Your task to perform on an android device: turn off location history Image 0: 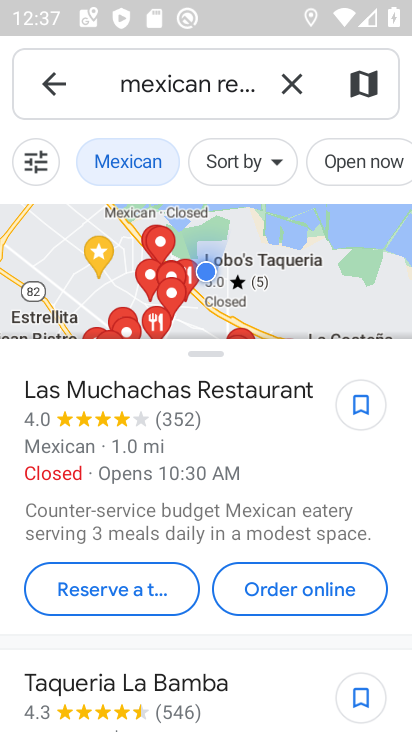
Step 0: press home button
Your task to perform on an android device: turn off location history Image 1: 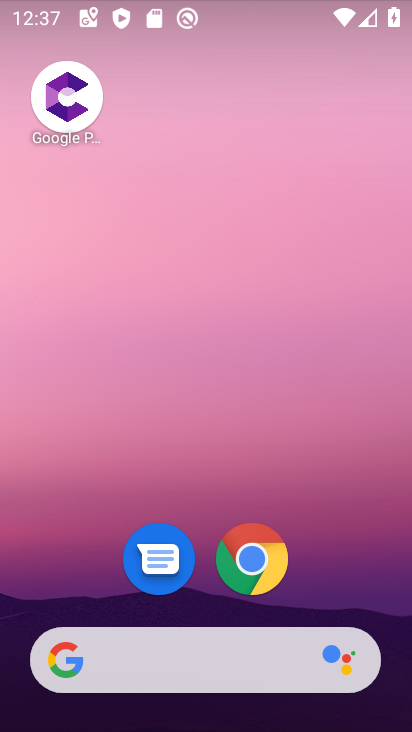
Step 1: drag from (159, 726) to (158, 0)
Your task to perform on an android device: turn off location history Image 2: 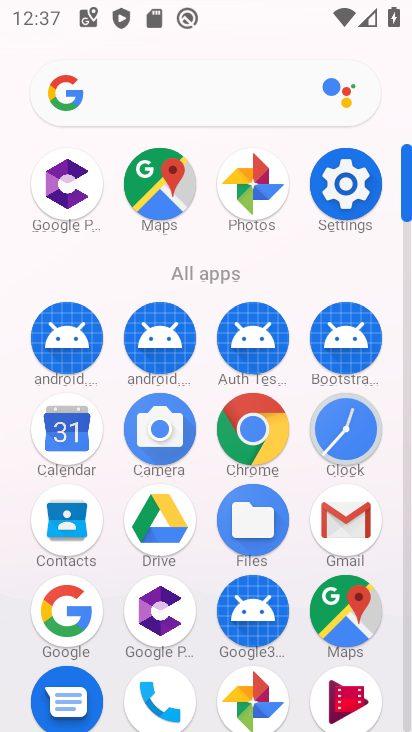
Step 2: click (334, 197)
Your task to perform on an android device: turn off location history Image 3: 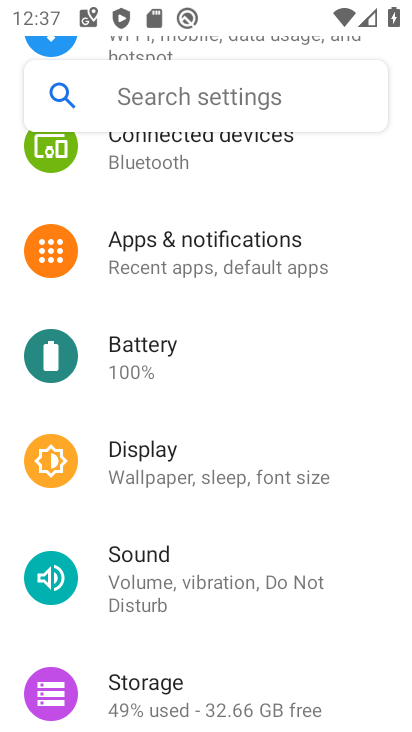
Step 3: drag from (214, 647) to (261, 242)
Your task to perform on an android device: turn off location history Image 4: 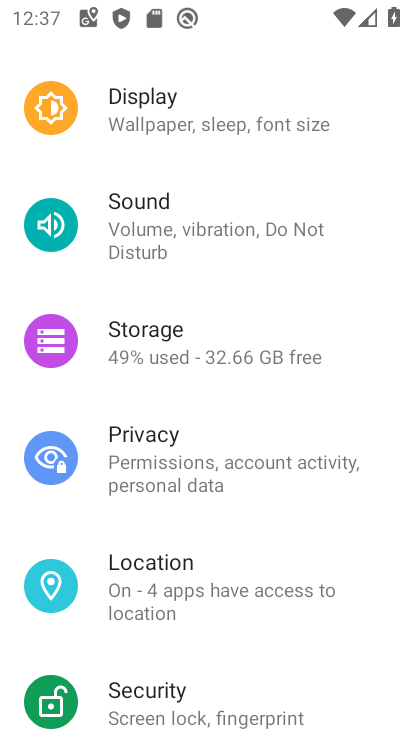
Step 4: click (196, 589)
Your task to perform on an android device: turn off location history Image 5: 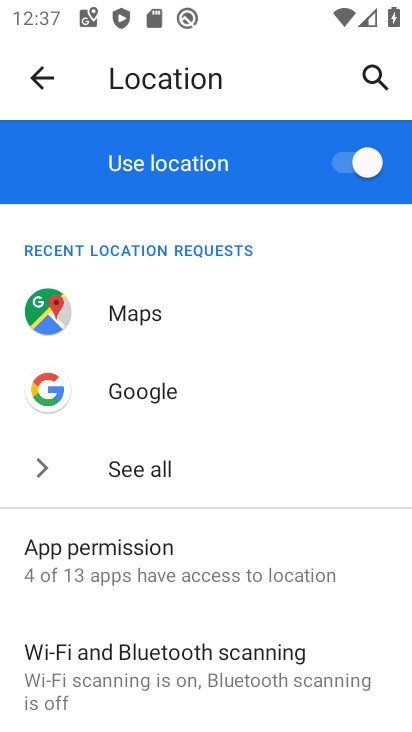
Step 5: drag from (211, 699) to (231, 327)
Your task to perform on an android device: turn off location history Image 6: 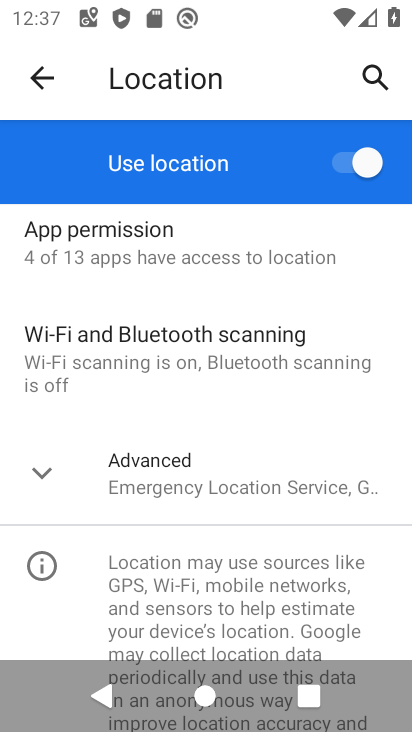
Step 6: click (180, 490)
Your task to perform on an android device: turn off location history Image 7: 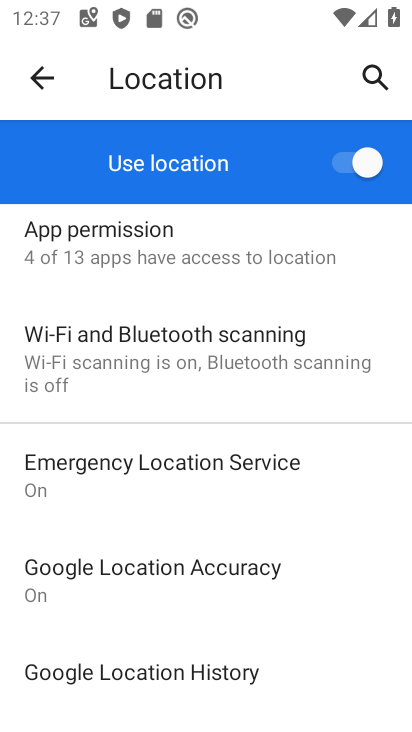
Step 7: click (139, 677)
Your task to perform on an android device: turn off location history Image 8: 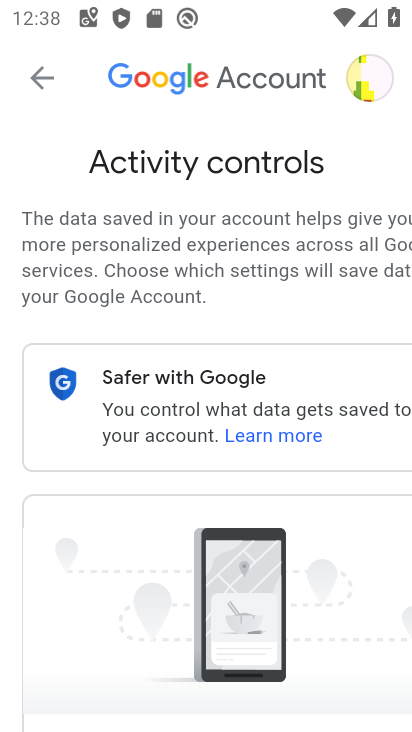
Step 8: task complete